Your task to perform on an android device: Play the last video I watched on Youtube Image 0: 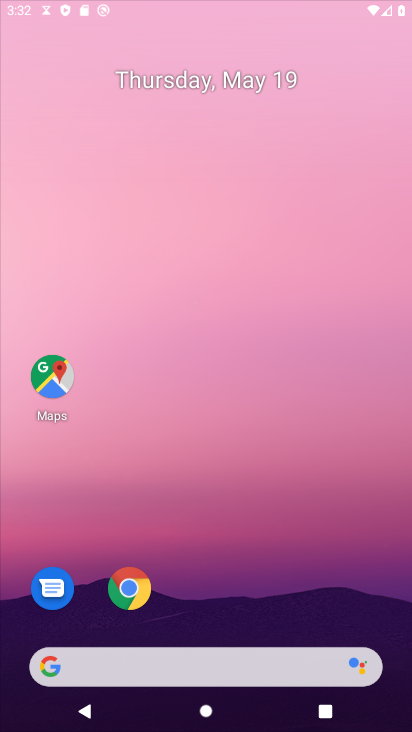
Step 0: click (272, 474)
Your task to perform on an android device: Play the last video I watched on Youtube Image 1: 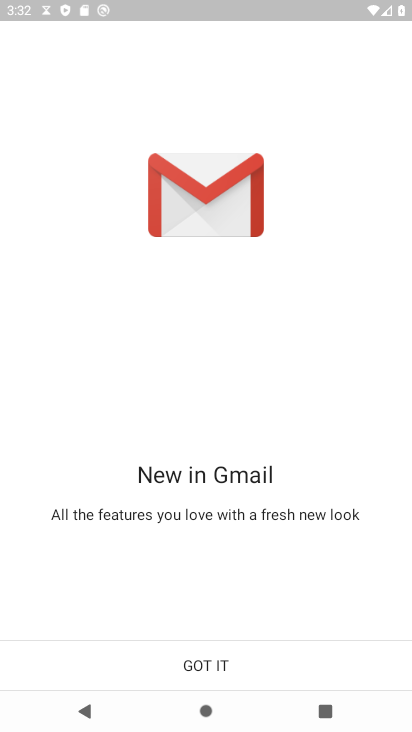
Step 1: press home button
Your task to perform on an android device: Play the last video I watched on Youtube Image 2: 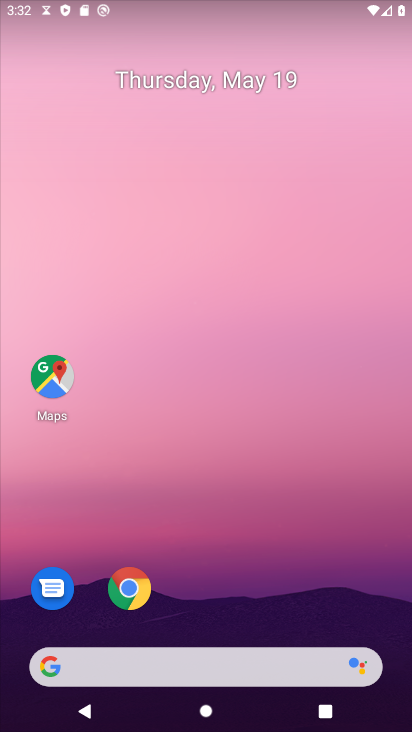
Step 2: drag from (226, 615) to (229, 201)
Your task to perform on an android device: Play the last video I watched on Youtube Image 3: 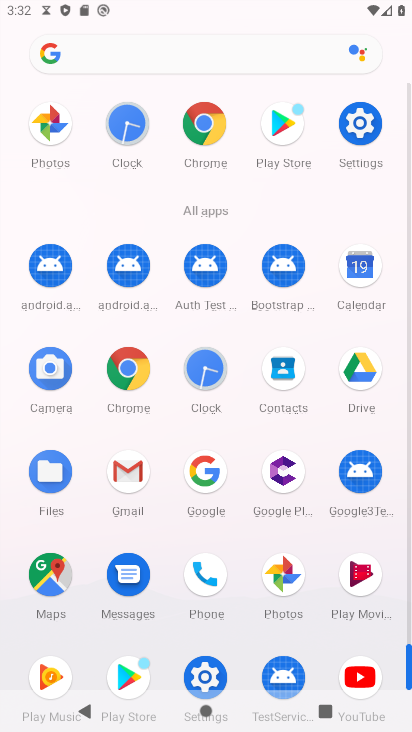
Step 3: drag from (349, 640) to (352, 532)
Your task to perform on an android device: Play the last video I watched on Youtube Image 4: 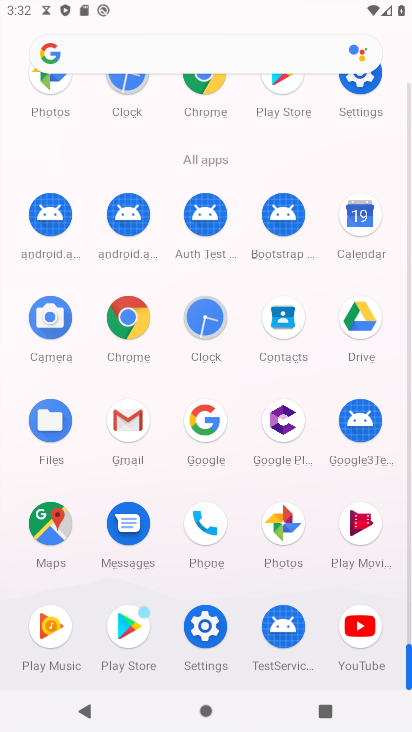
Step 4: click (358, 646)
Your task to perform on an android device: Play the last video I watched on Youtube Image 5: 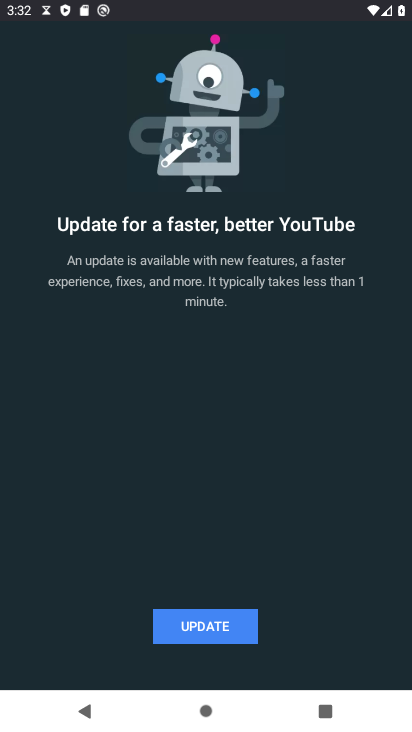
Step 5: click (103, 626)
Your task to perform on an android device: Play the last video I watched on Youtube Image 6: 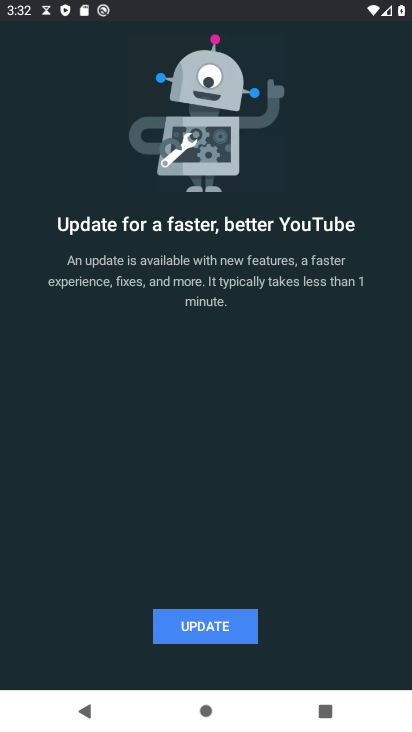
Step 6: click (171, 627)
Your task to perform on an android device: Play the last video I watched on Youtube Image 7: 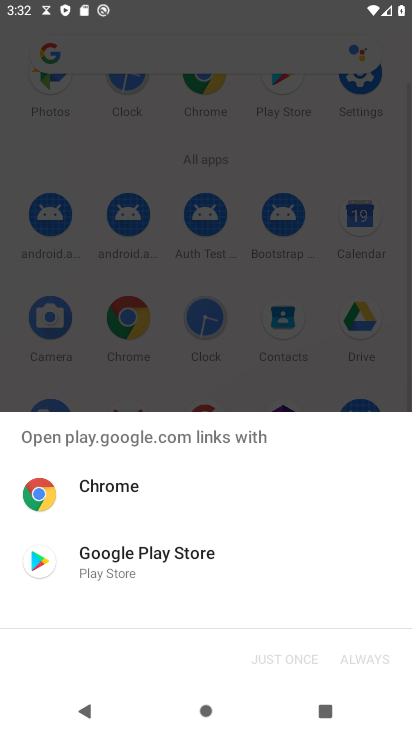
Step 7: click (121, 560)
Your task to perform on an android device: Play the last video I watched on Youtube Image 8: 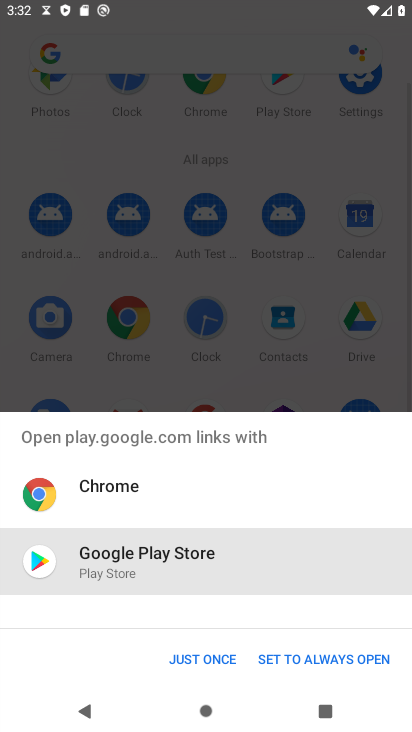
Step 8: click (213, 653)
Your task to perform on an android device: Play the last video I watched on Youtube Image 9: 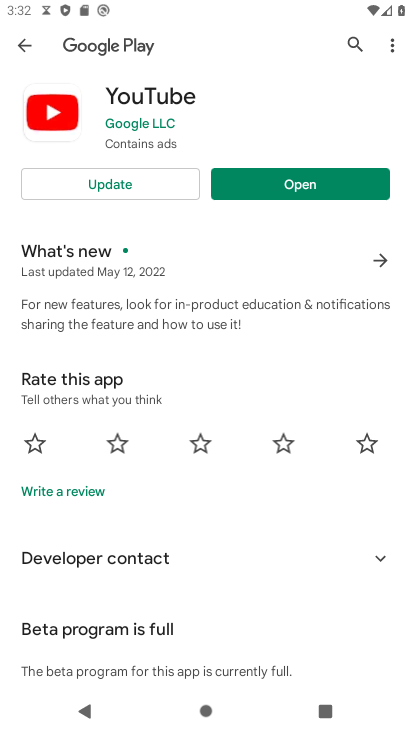
Step 9: click (146, 183)
Your task to perform on an android device: Play the last video I watched on Youtube Image 10: 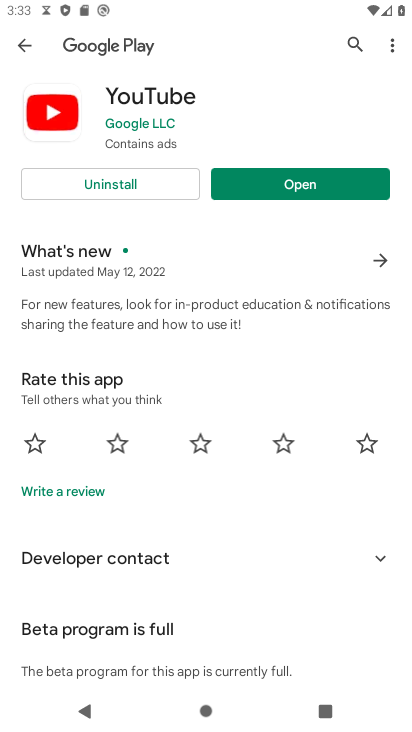
Step 10: click (317, 178)
Your task to perform on an android device: Play the last video I watched on Youtube Image 11: 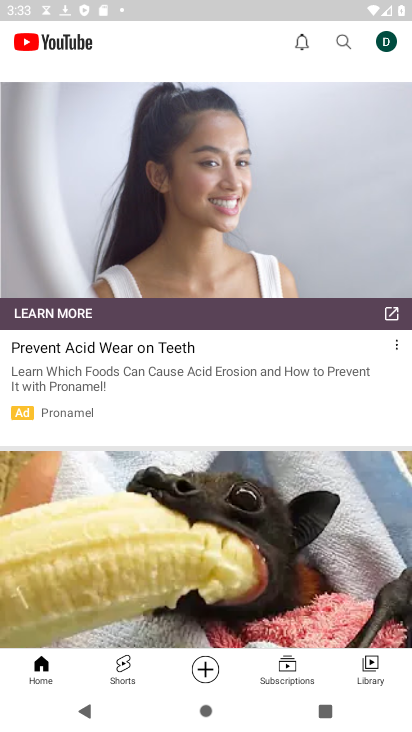
Step 11: click (368, 669)
Your task to perform on an android device: Play the last video I watched on Youtube Image 12: 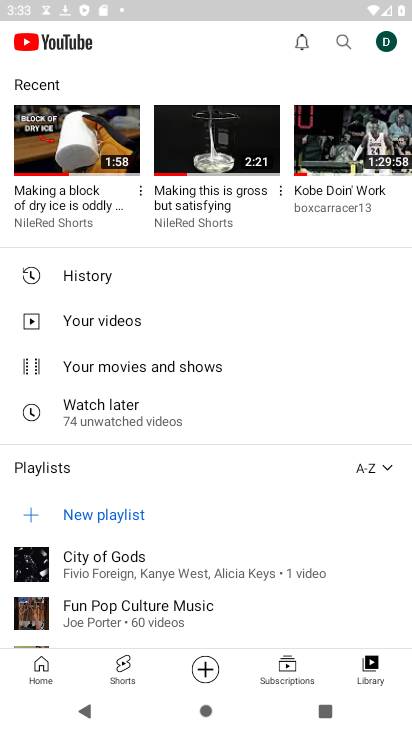
Step 12: click (72, 165)
Your task to perform on an android device: Play the last video I watched on Youtube Image 13: 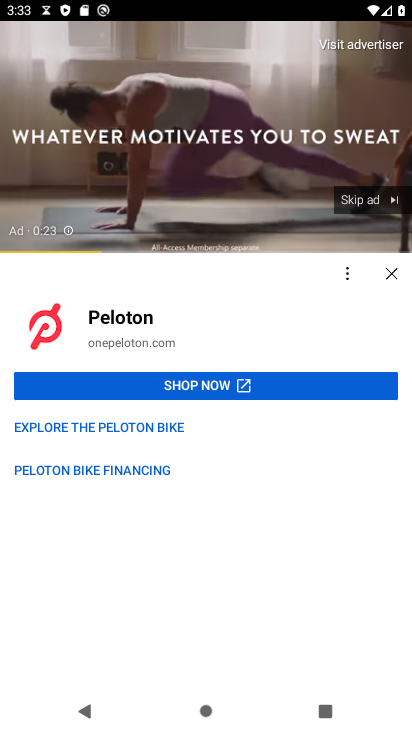
Step 13: task complete